Your task to perform on an android device: turn smart compose on in the gmail app Image 0: 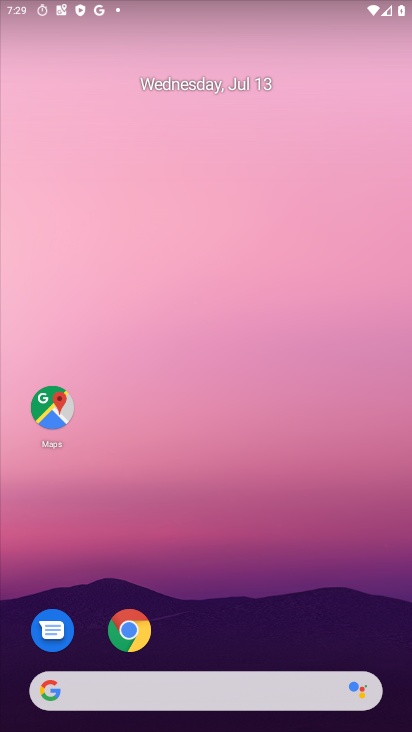
Step 0: drag from (337, 623) to (148, 2)
Your task to perform on an android device: turn smart compose on in the gmail app Image 1: 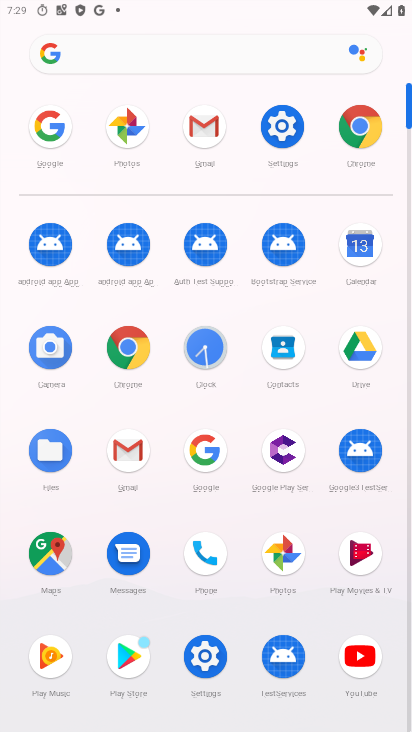
Step 1: click (195, 112)
Your task to perform on an android device: turn smart compose on in the gmail app Image 2: 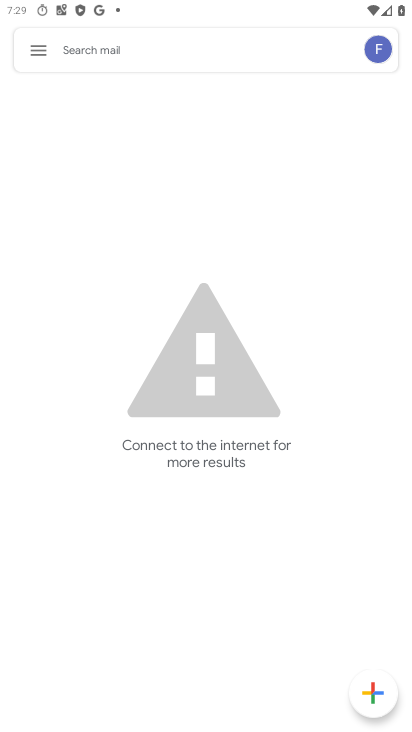
Step 2: click (22, 46)
Your task to perform on an android device: turn smart compose on in the gmail app Image 3: 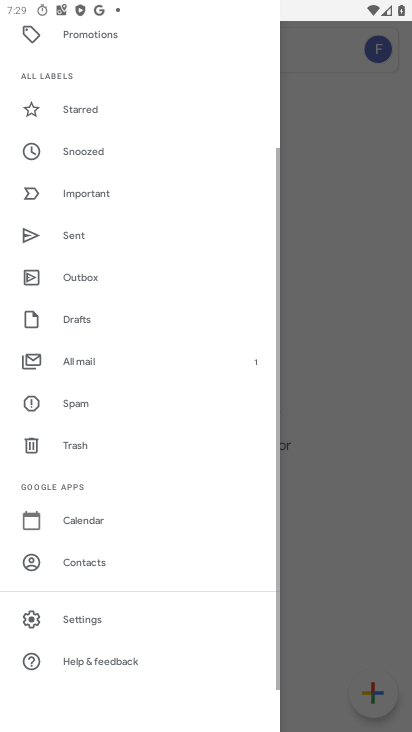
Step 3: click (112, 617)
Your task to perform on an android device: turn smart compose on in the gmail app Image 4: 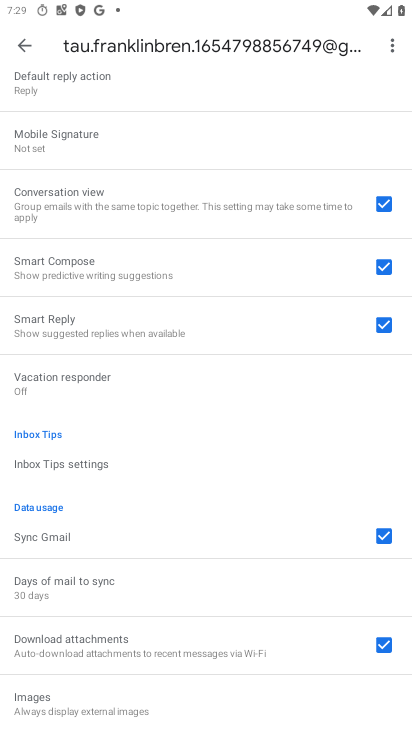
Step 4: task complete